Your task to perform on an android device: Go to location settings Image 0: 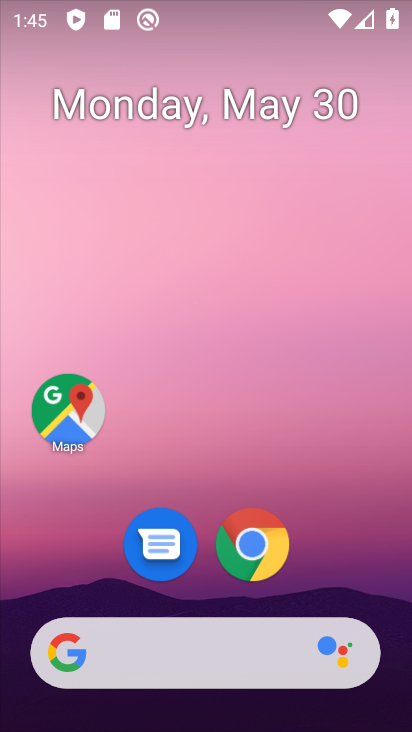
Step 0: drag from (190, 623) to (257, 102)
Your task to perform on an android device: Go to location settings Image 1: 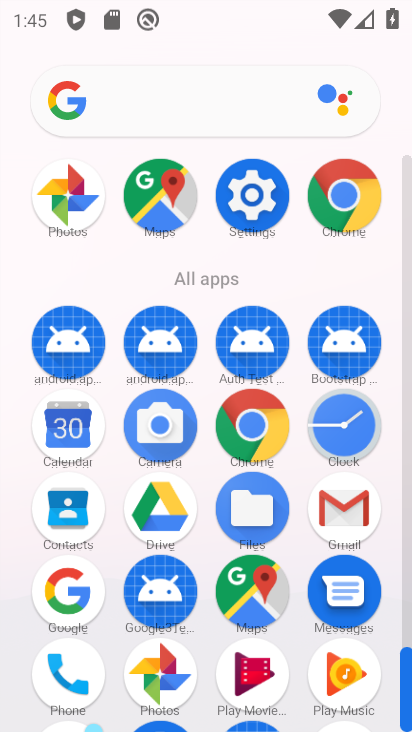
Step 1: click (246, 201)
Your task to perform on an android device: Go to location settings Image 2: 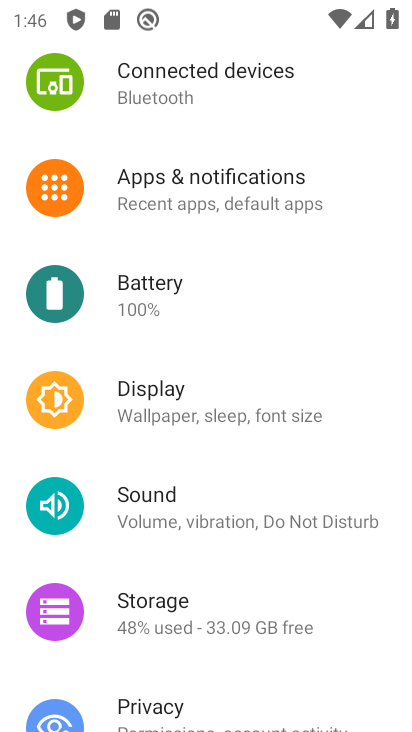
Step 2: drag from (204, 713) to (274, 130)
Your task to perform on an android device: Go to location settings Image 3: 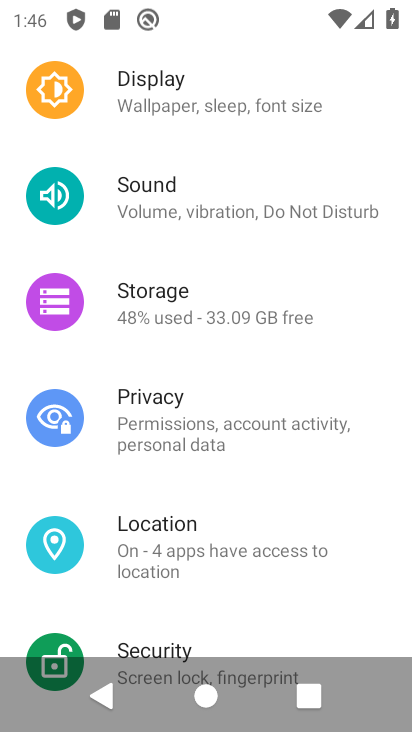
Step 3: drag from (192, 697) to (275, 263)
Your task to perform on an android device: Go to location settings Image 4: 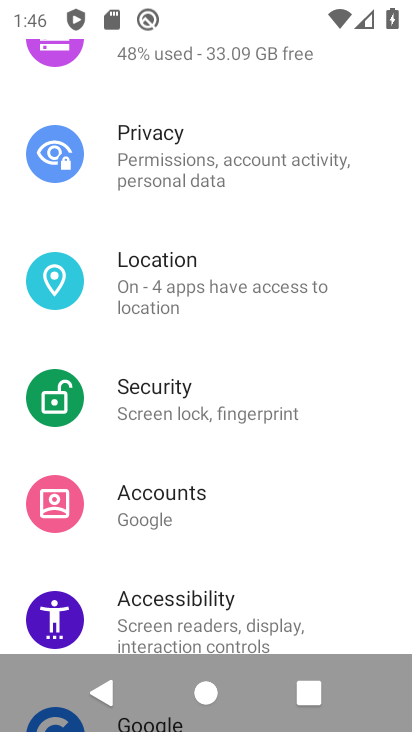
Step 4: drag from (211, 542) to (276, 183)
Your task to perform on an android device: Go to location settings Image 5: 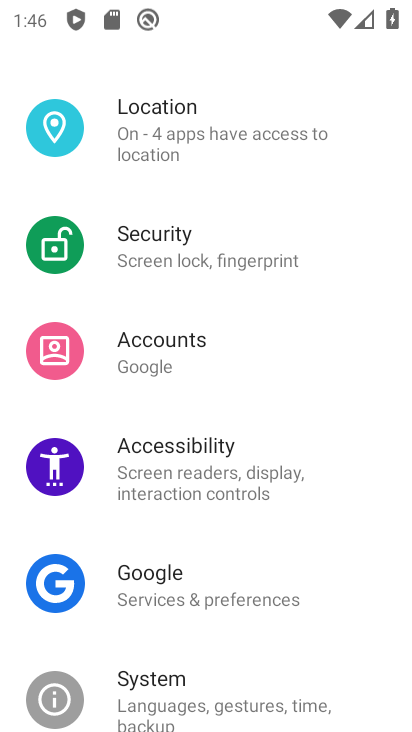
Step 5: click (162, 529)
Your task to perform on an android device: Go to location settings Image 6: 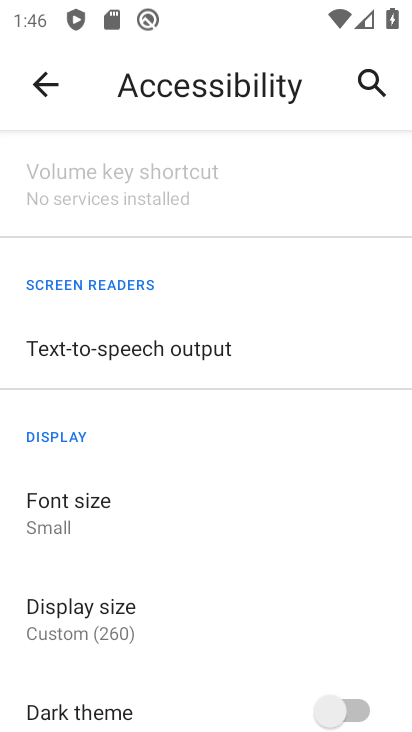
Step 6: press back button
Your task to perform on an android device: Go to location settings Image 7: 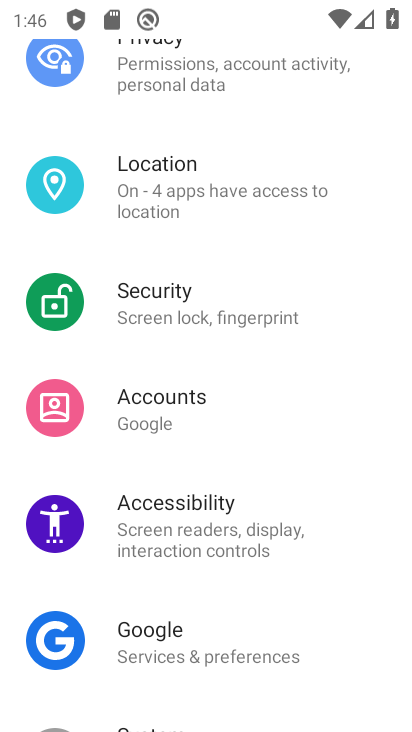
Step 7: click (190, 195)
Your task to perform on an android device: Go to location settings Image 8: 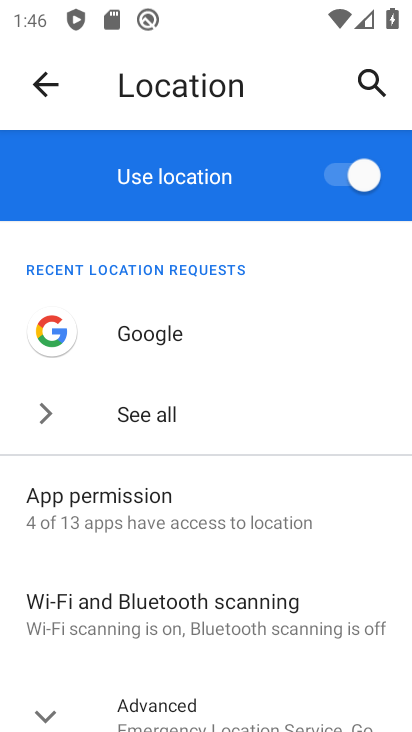
Step 8: click (143, 714)
Your task to perform on an android device: Go to location settings Image 9: 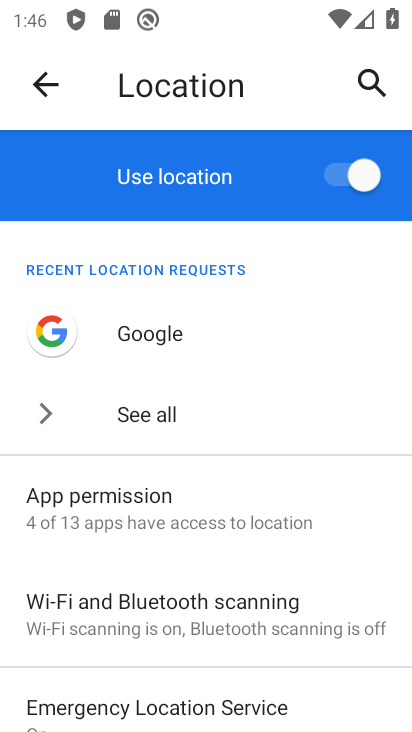
Step 9: task complete